Your task to perform on an android device: toggle notifications settings in the gmail app Image 0: 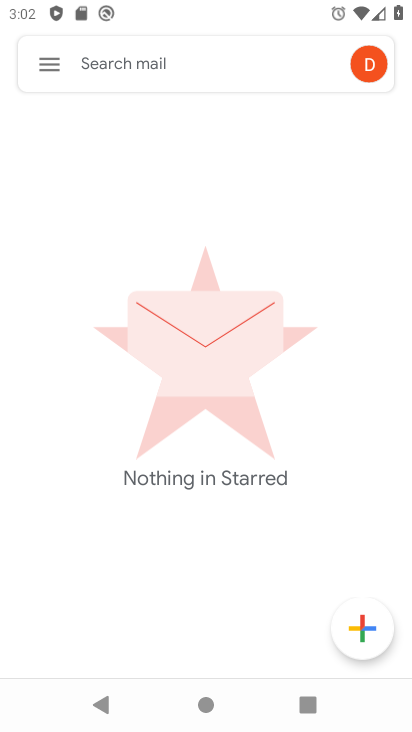
Step 0: press home button
Your task to perform on an android device: toggle notifications settings in the gmail app Image 1: 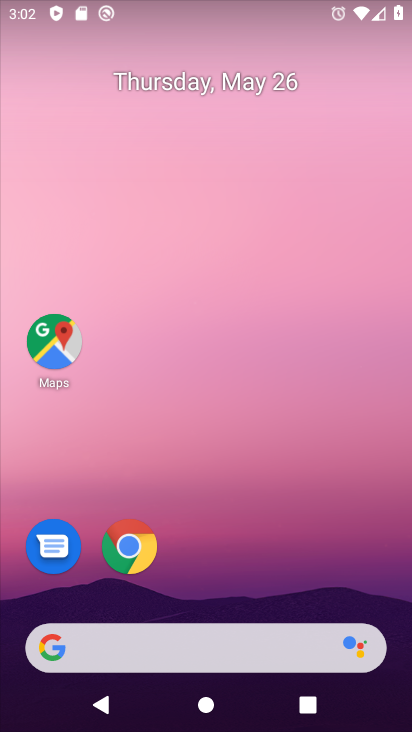
Step 1: drag from (397, 683) to (400, 286)
Your task to perform on an android device: toggle notifications settings in the gmail app Image 2: 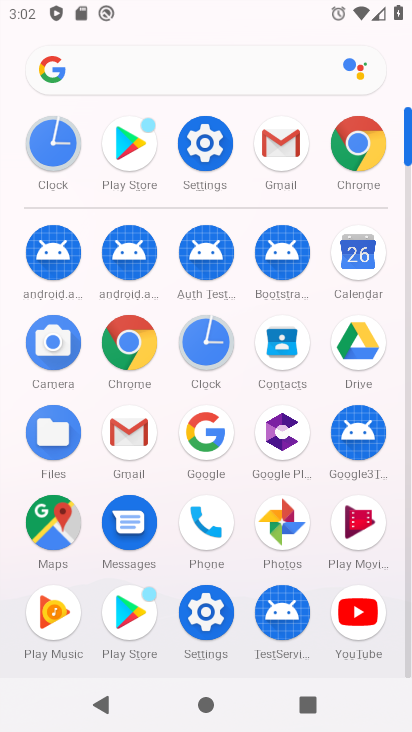
Step 2: click (208, 152)
Your task to perform on an android device: toggle notifications settings in the gmail app Image 3: 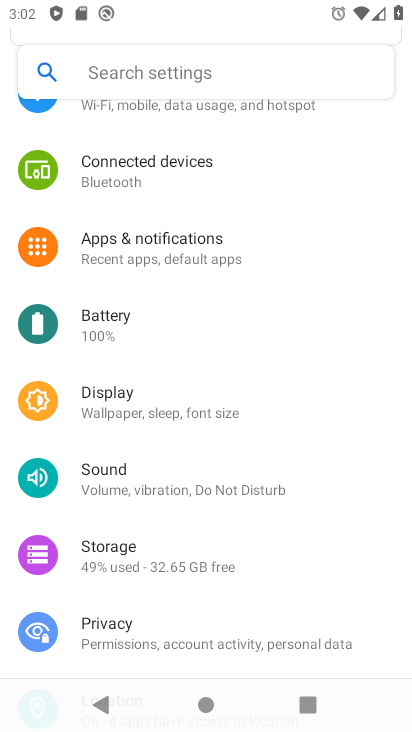
Step 3: click (322, 218)
Your task to perform on an android device: toggle notifications settings in the gmail app Image 4: 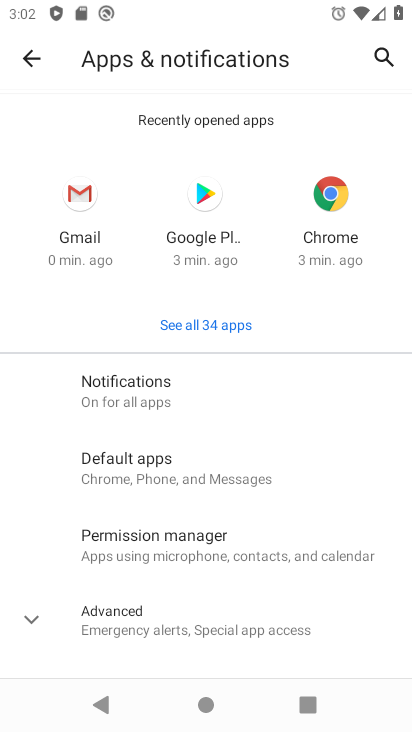
Step 4: click (136, 391)
Your task to perform on an android device: toggle notifications settings in the gmail app Image 5: 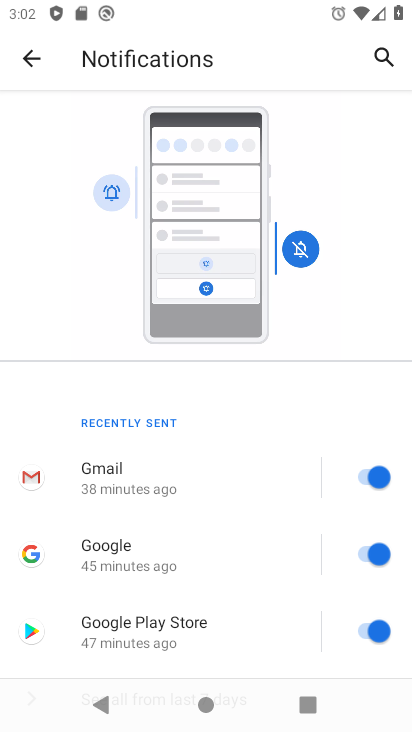
Step 5: click (118, 392)
Your task to perform on an android device: toggle notifications settings in the gmail app Image 6: 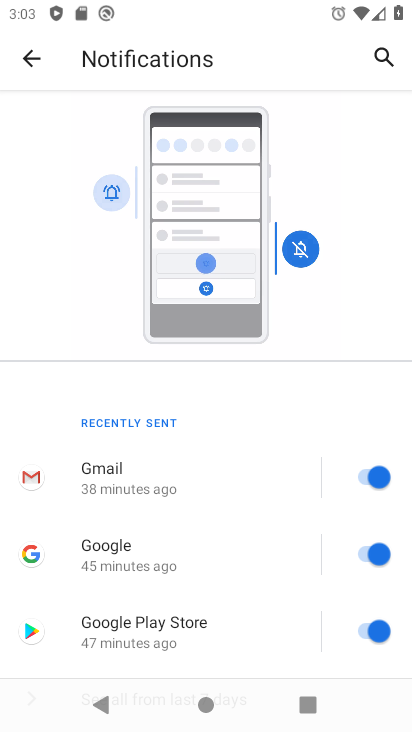
Step 6: drag from (253, 644) to (260, 409)
Your task to perform on an android device: toggle notifications settings in the gmail app Image 7: 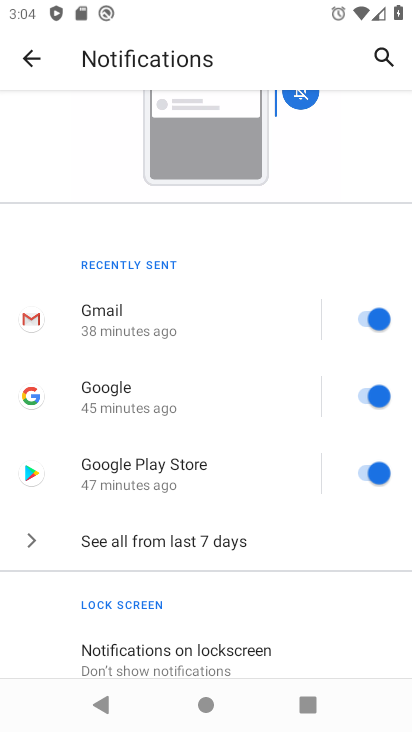
Step 7: press home button
Your task to perform on an android device: toggle notifications settings in the gmail app Image 8: 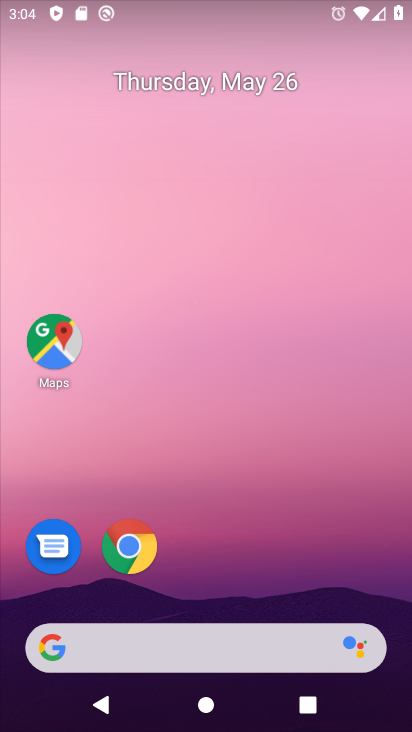
Step 8: drag from (396, 685) to (345, 301)
Your task to perform on an android device: toggle notifications settings in the gmail app Image 9: 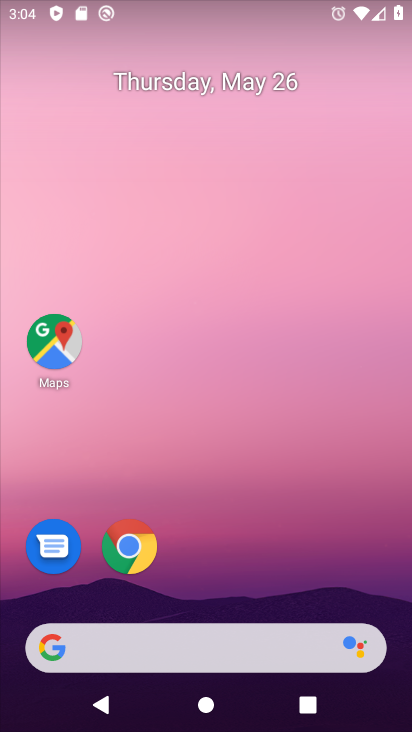
Step 9: drag from (398, 654) to (316, 148)
Your task to perform on an android device: toggle notifications settings in the gmail app Image 10: 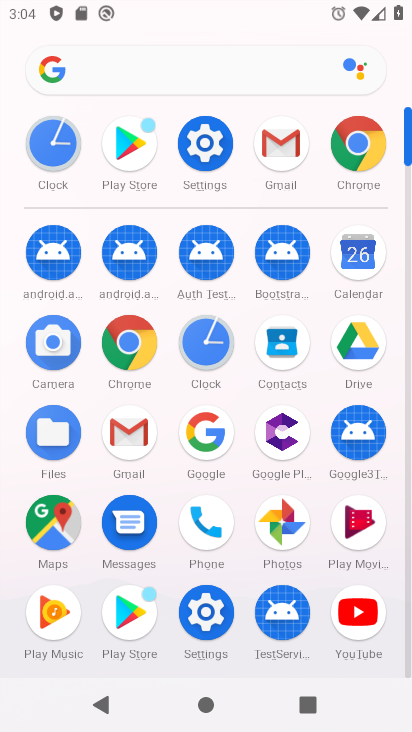
Step 10: click (137, 441)
Your task to perform on an android device: toggle notifications settings in the gmail app Image 11: 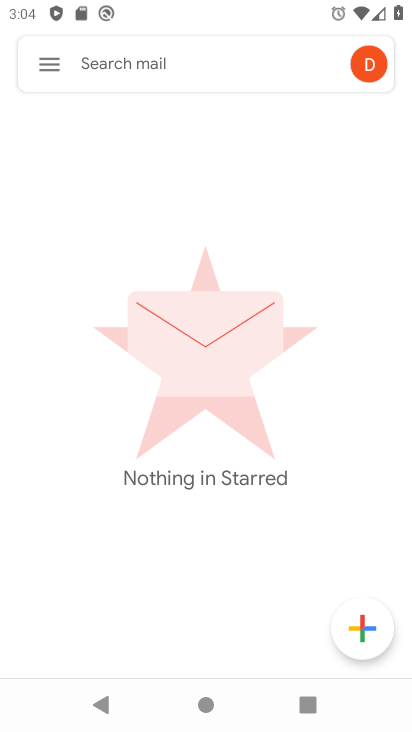
Step 11: click (48, 56)
Your task to perform on an android device: toggle notifications settings in the gmail app Image 12: 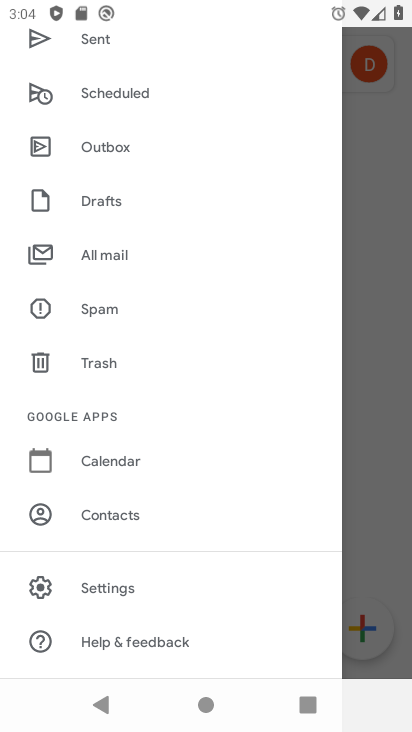
Step 12: click (106, 583)
Your task to perform on an android device: toggle notifications settings in the gmail app Image 13: 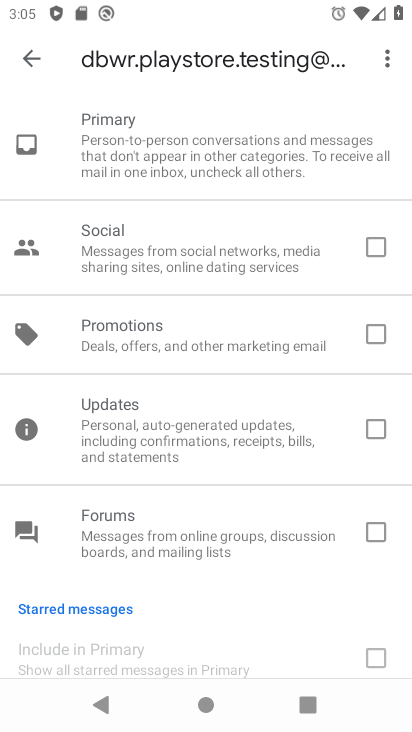
Step 13: click (33, 56)
Your task to perform on an android device: toggle notifications settings in the gmail app Image 14: 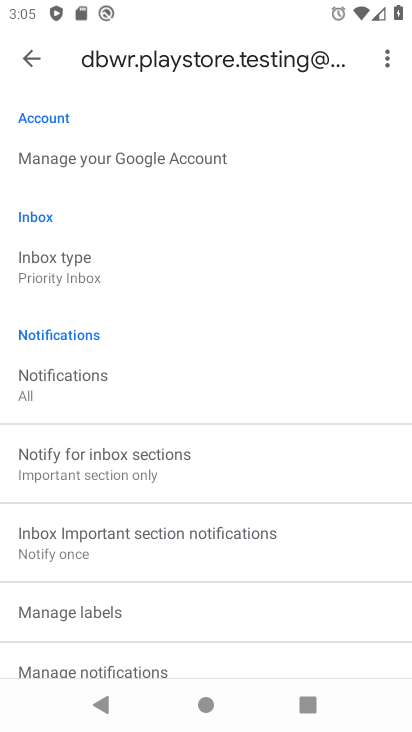
Step 14: click (23, 54)
Your task to perform on an android device: toggle notifications settings in the gmail app Image 15: 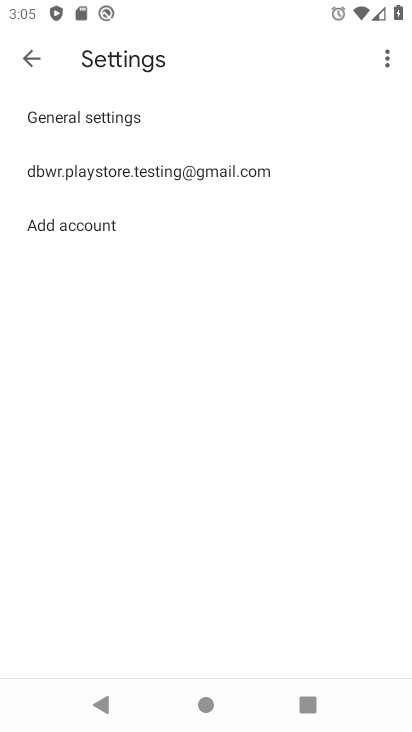
Step 15: click (68, 114)
Your task to perform on an android device: toggle notifications settings in the gmail app Image 16: 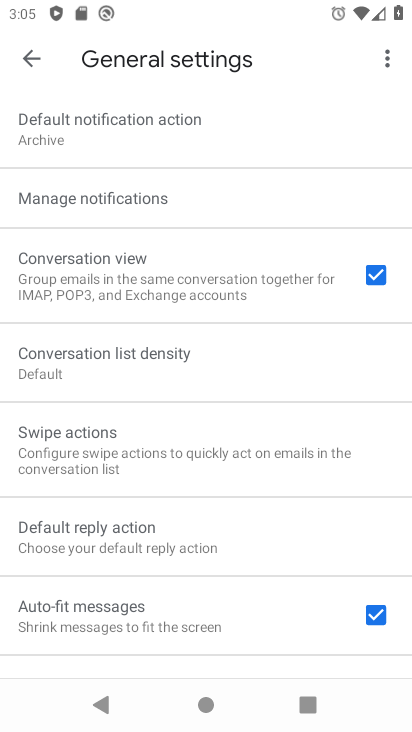
Step 16: click (80, 193)
Your task to perform on an android device: toggle notifications settings in the gmail app Image 17: 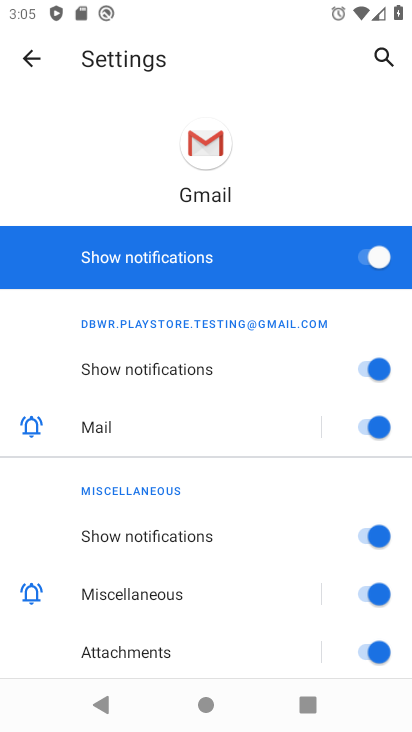
Step 17: click (369, 259)
Your task to perform on an android device: toggle notifications settings in the gmail app Image 18: 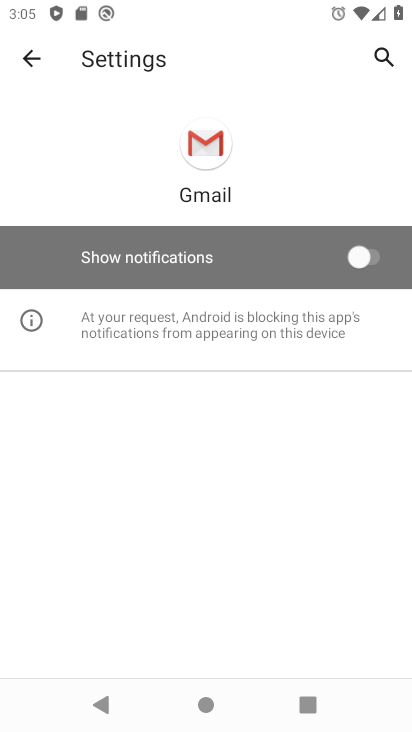
Step 18: task complete